Your task to perform on an android device: turn on airplane mode Image 0: 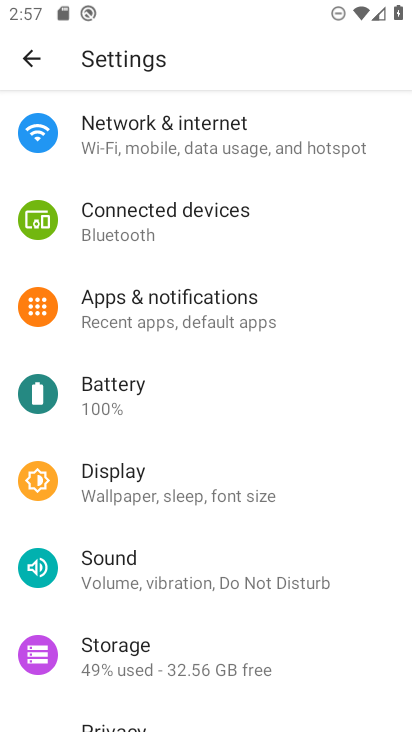
Step 0: drag from (294, 359) to (325, 476)
Your task to perform on an android device: turn on airplane mode Image 1: 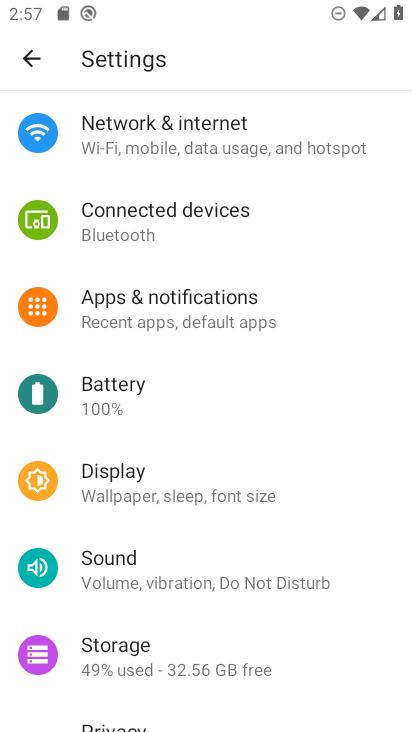
Step 1: click (216, 130)
Your task to perform on an android device: turn on airplane mode Image 2: 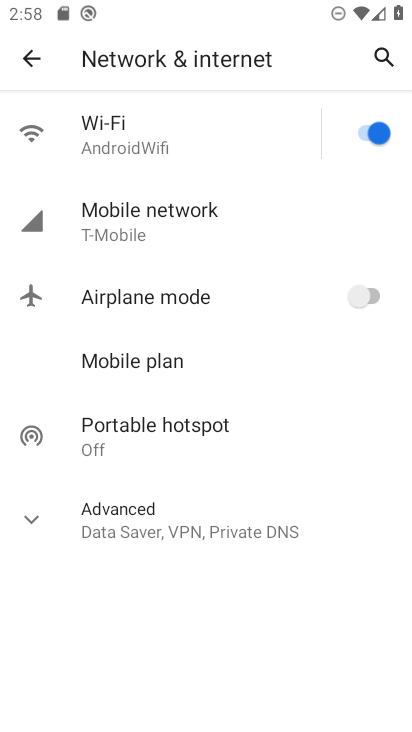
Step 2: click (370, 293)
Your task to perform on an android device: turn on airplane mode Image 3: 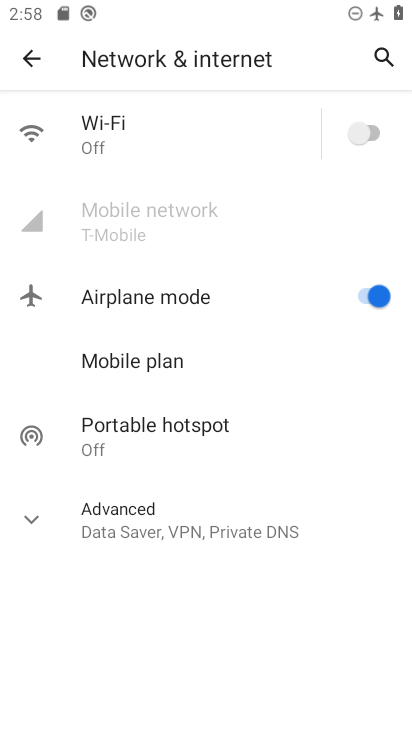
Step 3: task complete